Your task to perform on an android device: Toggle the flashlight Image 0: 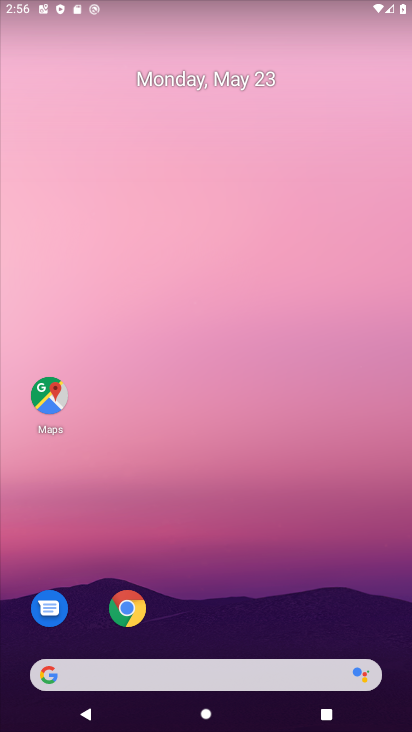
Step 0: drag from (243, 602) to (155, 283)
Your task to perform on an android device: Toggle the flashlight Image 1: 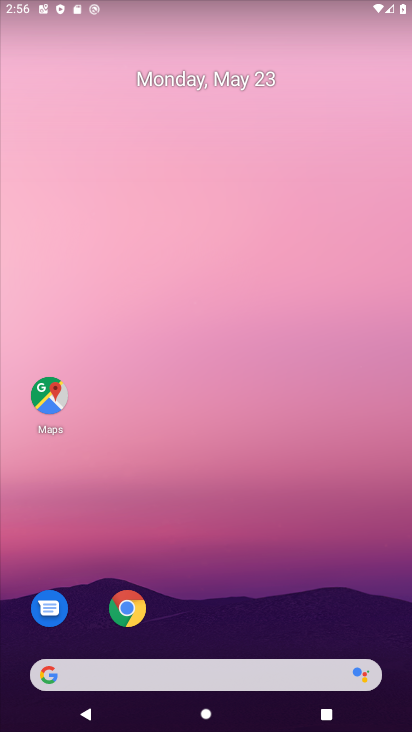
Step 1: drag from (228, 597) to (165, 239)
Your task to perform on an android device: Toggle the flashlight Image 2: 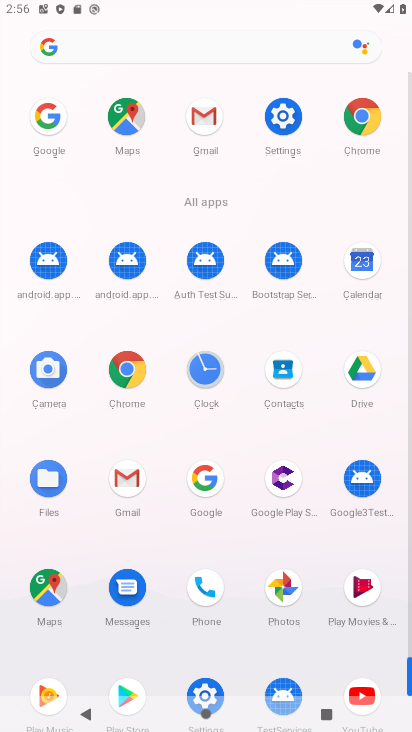
Step 2: click (283, 117)
Your task to perform on an android device: Toggle the flashlight Image 3: 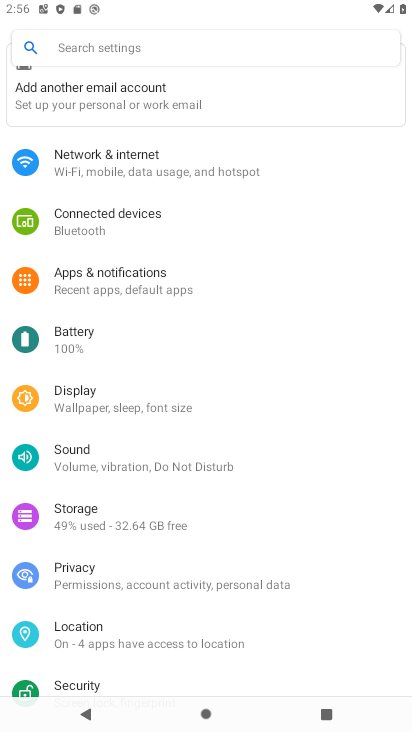
Step 3: drag from (153, 559) to (214, 466)
Your task to perform on an android device: Toggle the flashlight Image 4: 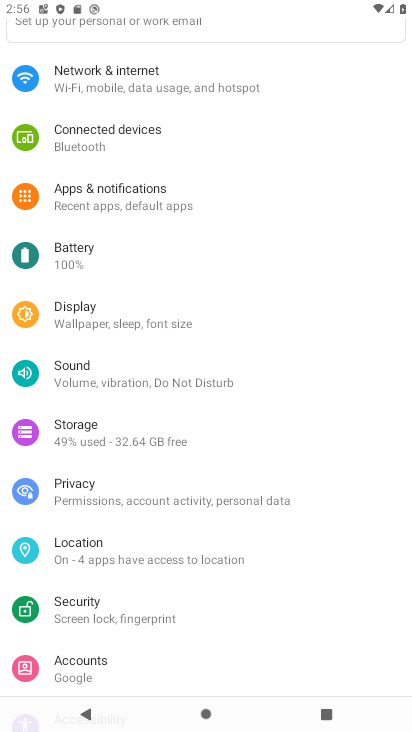
Step 4: drag from (143, 562) to (207, 469)
Your task to perform on an android device: Toggle the flashlight Image 5: 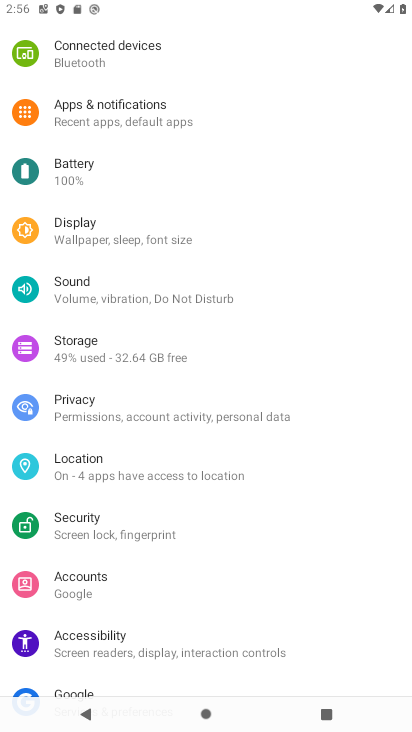
Step 5: drag from (151, 599) to (188, 537)
Your task to perform on an android device: Toggle the flashlight Image 6: 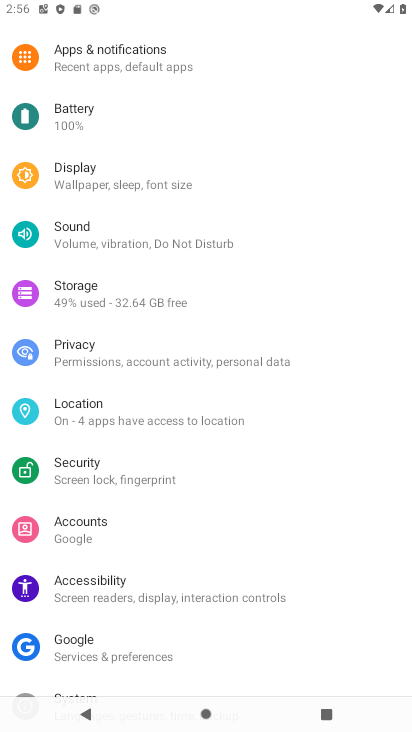
Step 6: click (141, 584)
Your task to perform on an android device: Toggle the flashlight Image 7: 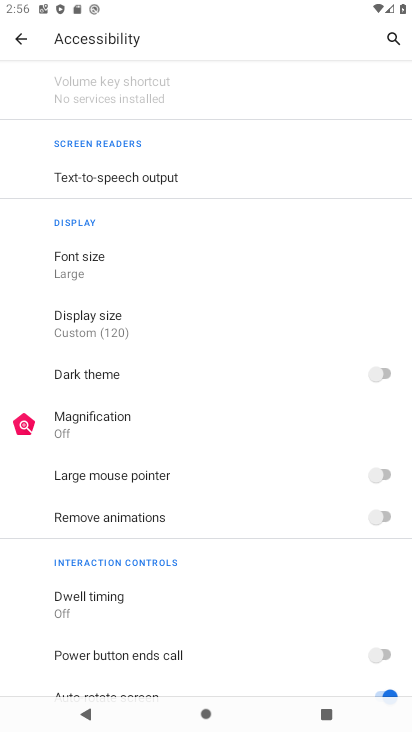
Step 7: drag from (135, 479) to (195, 390)
Your task to perform on an android device: Toggle the flashlight Image 8: 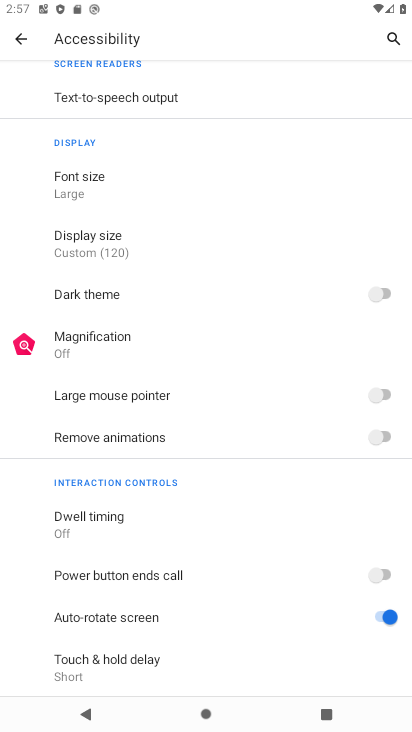
Step 8: drag from (140, 514) to (195, 423)
Your task to perform on an android device: Toggle the flashlight Image 9: 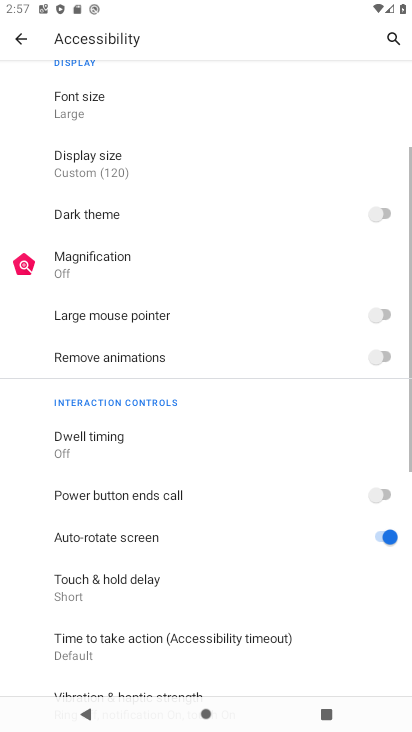
Step 9: drag from (119, 535) to (204, 423)
Your task to perform on an android device: Toggle the flashlight Image 10: 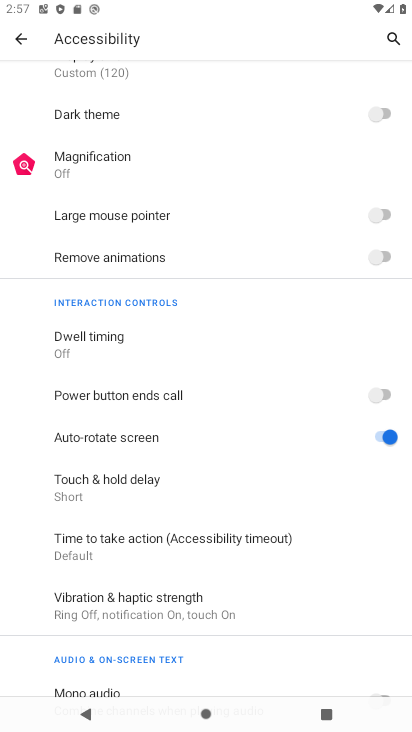
Step 10: drag from (104, 516) to (222, 393)
Your task to perform on an android device: Toggle the flashlight Image 11: 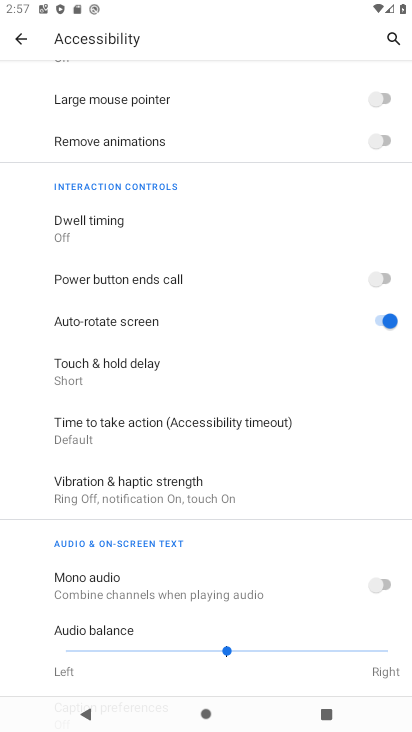
Step 11: drag from (87, 553) to (209, 421)
Your task to perform on an android device: Toggle the flashlight Image 12: 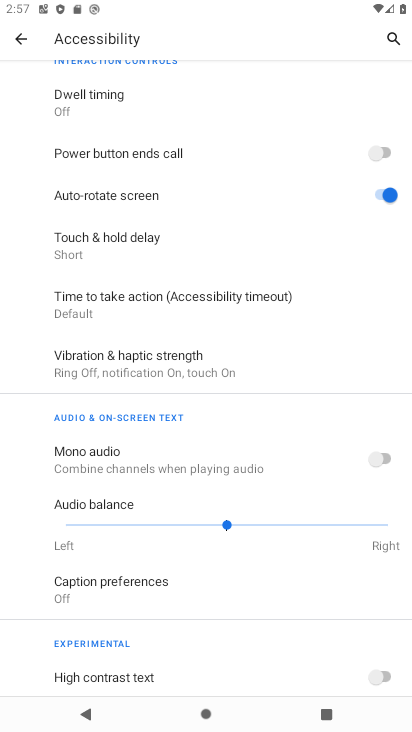
Step 12: drag from (96, 604) to (230, 454)
Your task to perform on an android device: Toggle the flashlight Image 13: 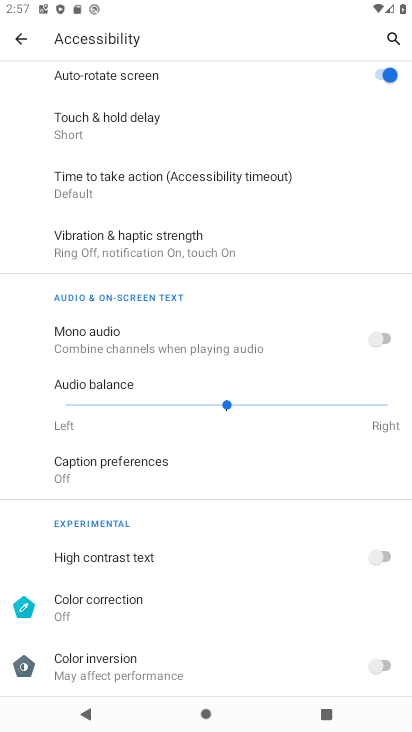
Step 13: drag from (102, 638) to (232, 495)
Your task to perform on an android device: Toggle the flashlight Image 14: 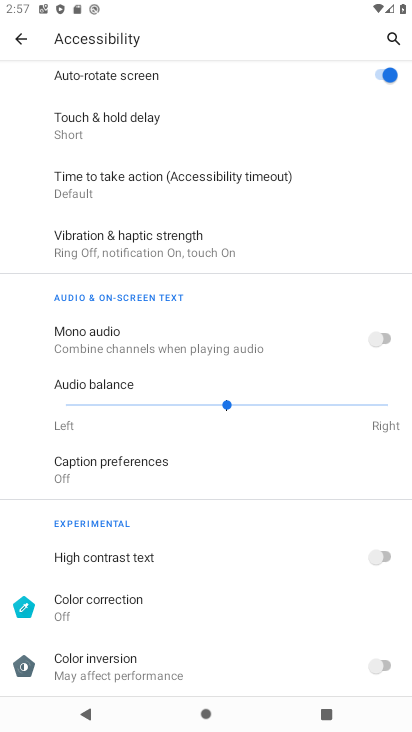
Step 14: drag from (200, 260) to (140, 513)
Your task to perform on an android device: Toggle the flashlight Image 15: 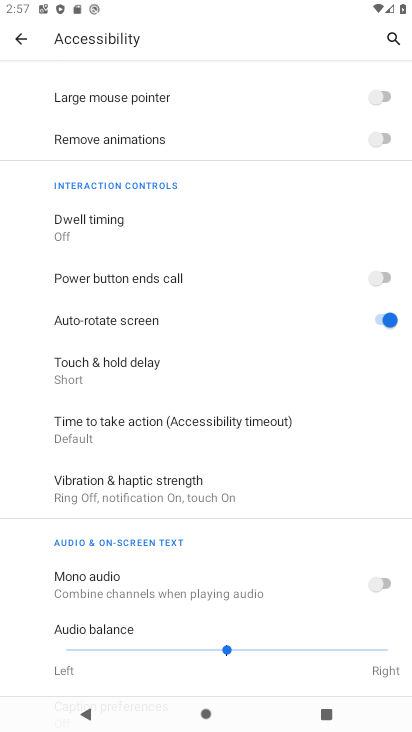
Step 15: press back button
Your task to perform on an android device: Toggle the flashlight Image 16: 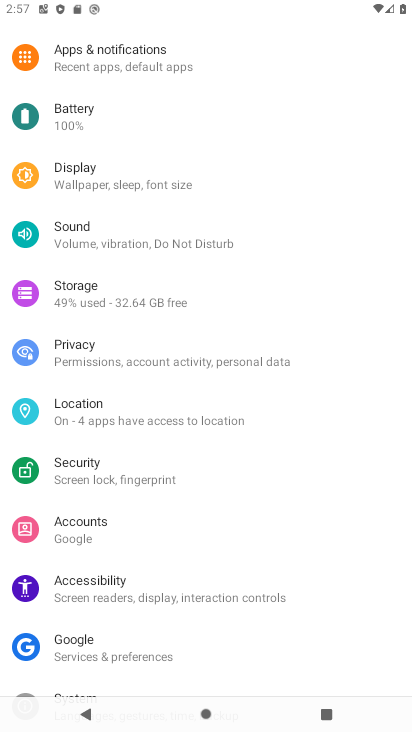
Step 16: click (177, 250)
Your task to perform on an android device: Toggle the flashlight Image 17: 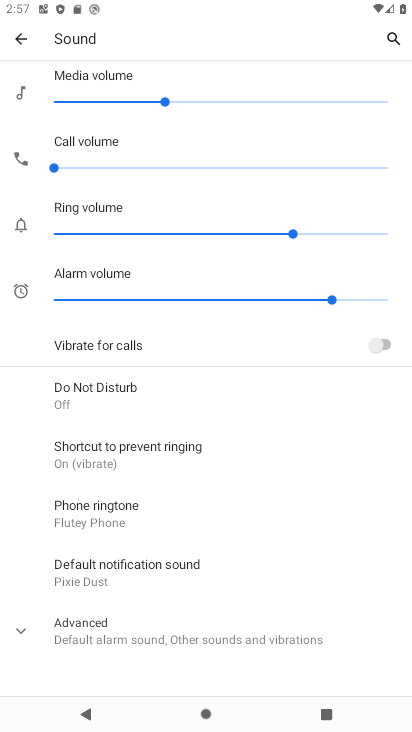
Step 17: drag from (273, 550) to (339, 461)
Your task to perform on an android device: Toggle the flashlight Image 18: 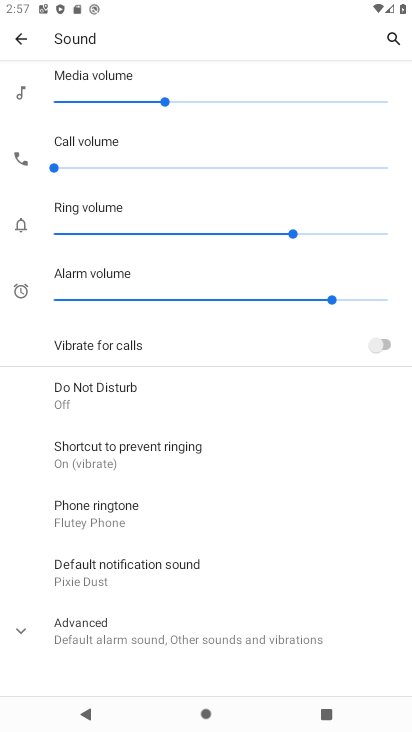
Step 18: press back button
Your task to perform on an android device: Toggle the flashlight Image 19: 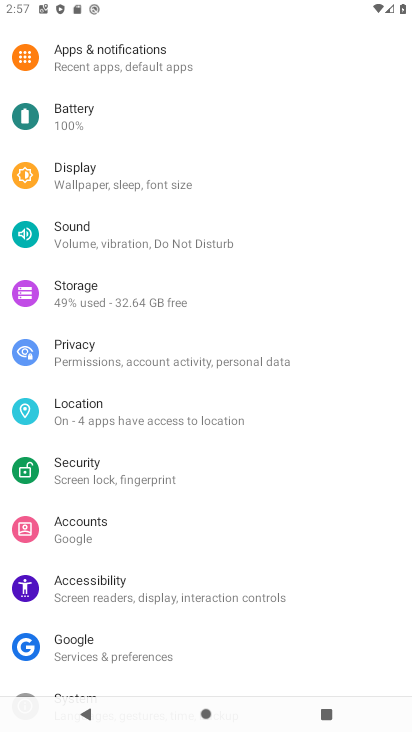
Step 19: click (176, 192)
Your task to perform on an android device: Toggle the flashlight Image 20: 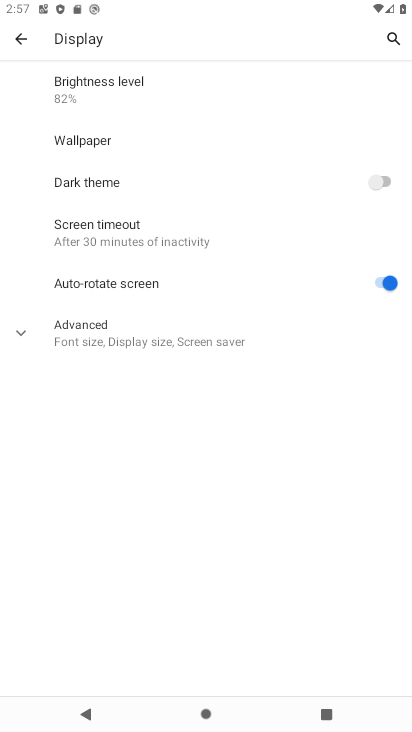
Step 20: click (235, 355)
Your task to perform on an android device: Toggle the flashlight Image 21: 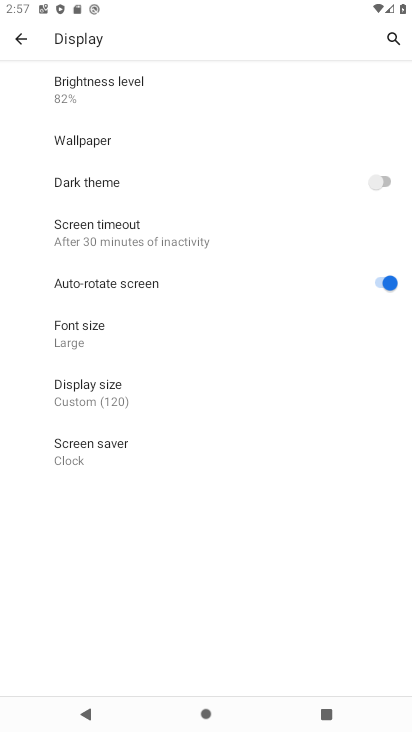
Step 21: task complete